Your task to perform on an android device: check out phone information Image 0: 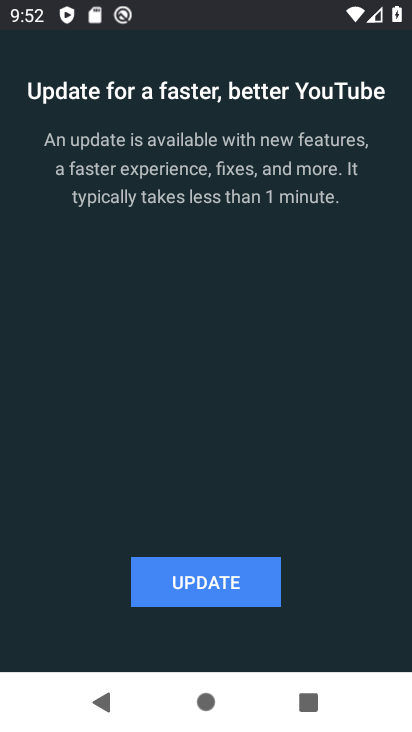
Step 0: press home button
Your task to perform on an android device: check out phone information Image 1: 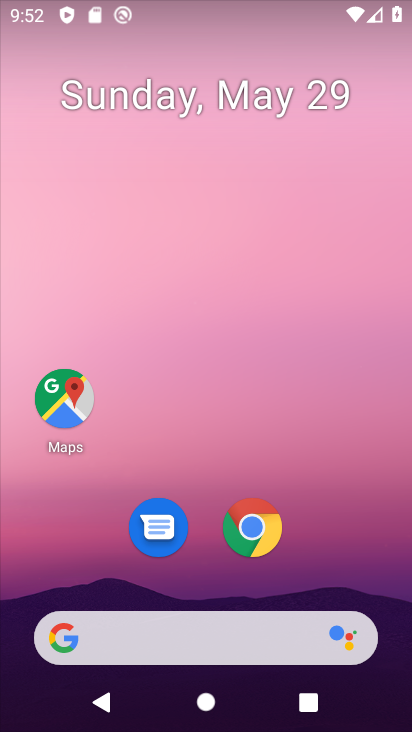
Step 1: drag from (385, 549) to (268, 112)
Your task to perform on an android device: check out phone information Image 2: 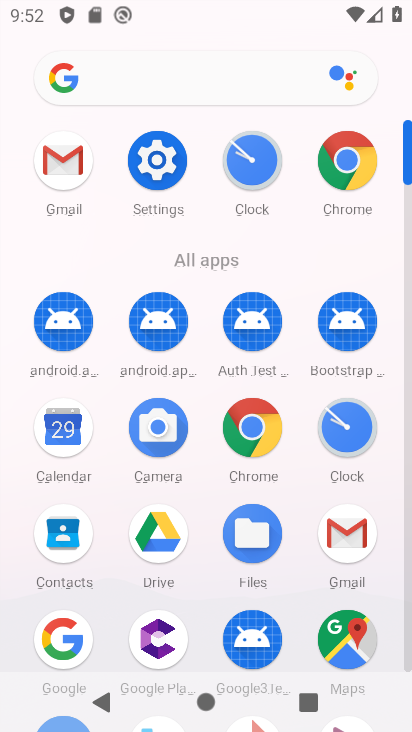
Step 2: drag from (298, 593) to (295, 125)
Your task to perform on an android device: check out phone information Image 3: 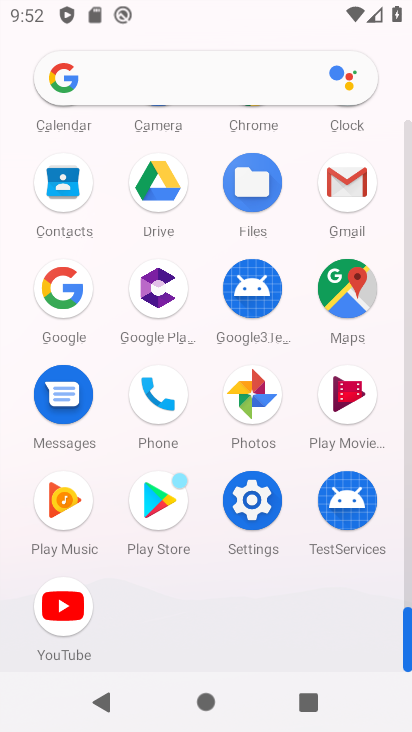
Step 3: click (144, 391)
Your task to perform on an android device: check out phone information Image 4: 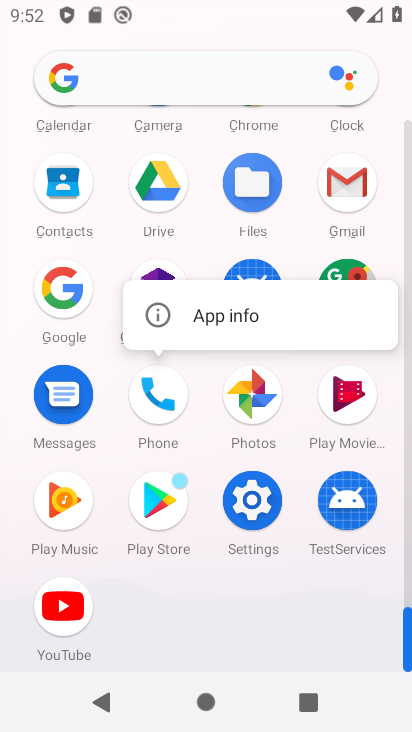
Step 4: click (216, 321)
Your task to perform on an android device: check out phone information Image 5: 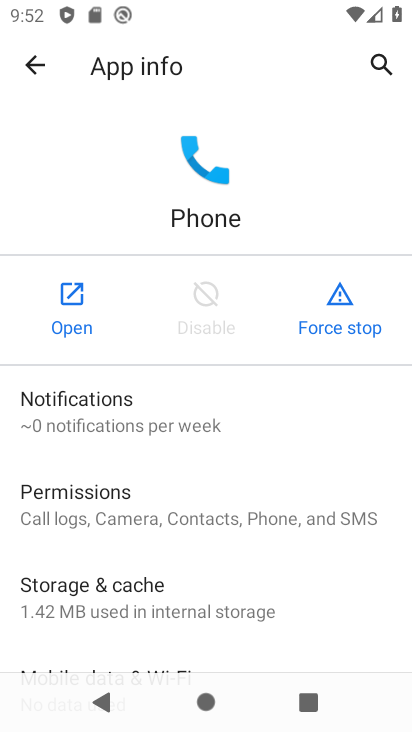
Step 5: task complete